Your task to perform on an android device: Search for Italian restaurants on Maps Image 0: 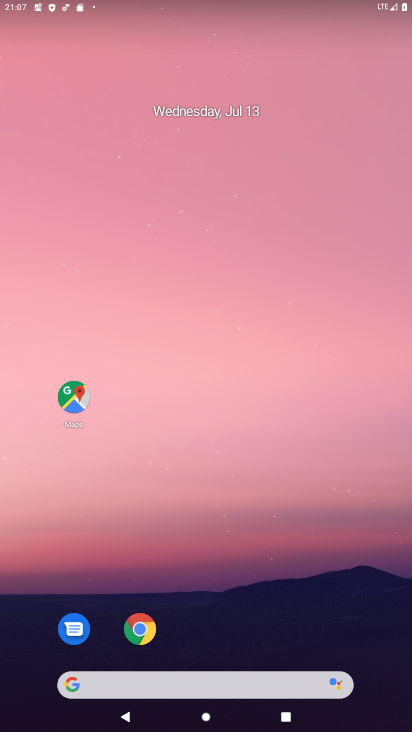
Step 0: drag from (243, 622) to (263, 57)
Your task to perform on an android device: Search for Italian restaurants on Maps Image 1: 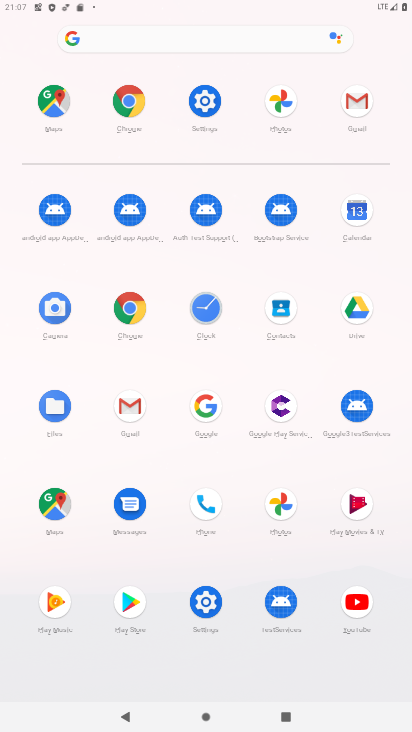
Step 1: click (58, 502)
Your task to perform on an android device: Search for Italian restaurants on Maps Image 2: 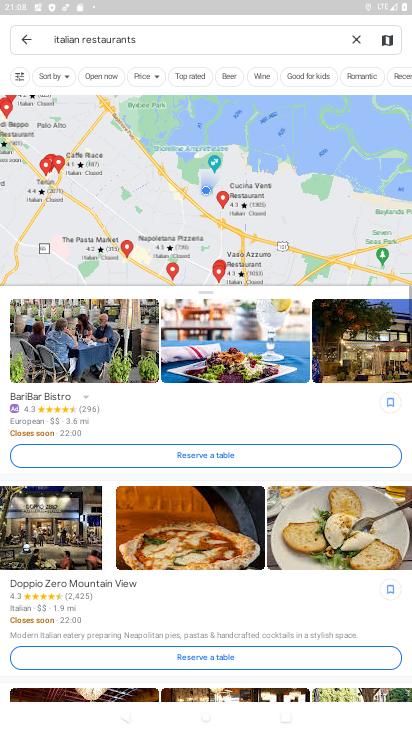
Step 2: task complete